Your task to perform on an android device: find snoozed emails in the gmail app Image 0: 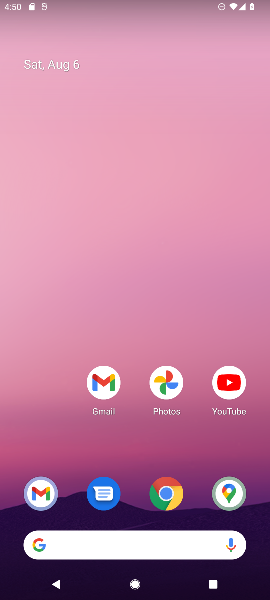
Step 0: drag from (137, 564) to (122, 229)
Your task to perform on an android device: find snoozed emails in the gmail app Image 1: 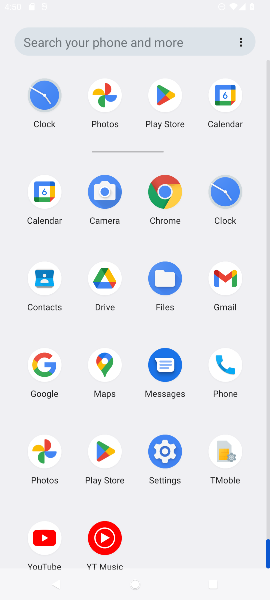
Step 1: drag from (216, 481) to (189, 261)
Your task to perform on an android device: find snoozed emails in the gmail app Image 2: 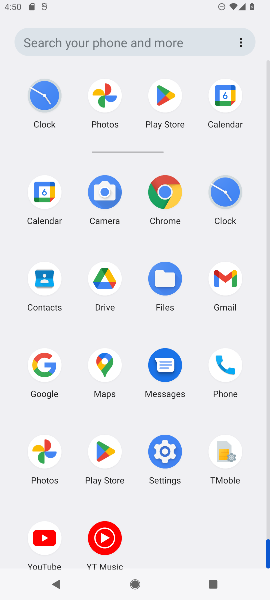
Step 2: click (212, 282)
Your task to perform on an android device: find snoozed emails in the gmail app Image 3: 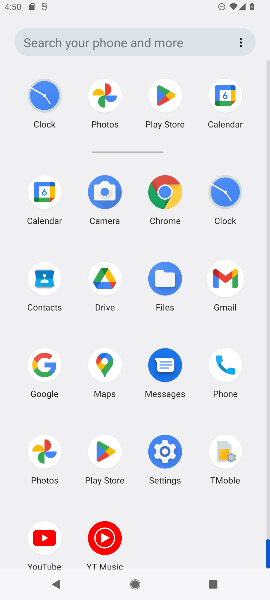
Step 3: click (217, 280)
Your task to perform on an android device: find snoozed emails in the gmail app Image 4: 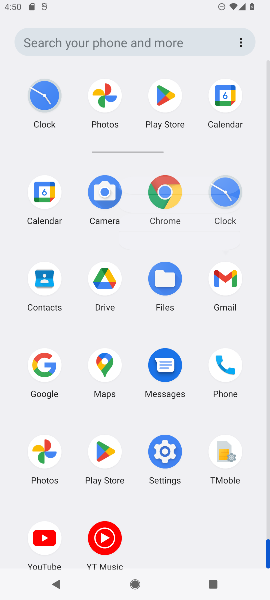
Step 4: click (222, 277)
Your task to perform on an android device: find snoozed emails in the gmail app Image 5: 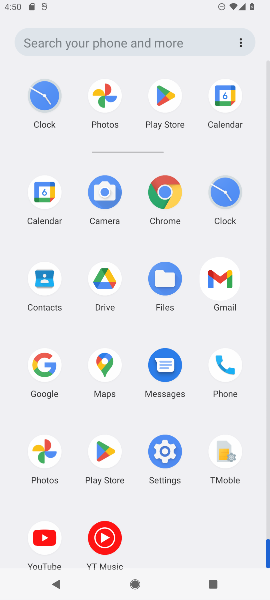
Step 5: click (224, 275)
Your task to perform on an android device: find snoozed emails in the gmail app Image 6: 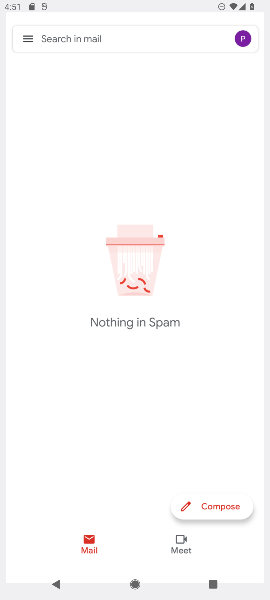
Step 6: click (224, 275)
Your task to perform on an android device: find snoozed emails in the gmail app Image 7: 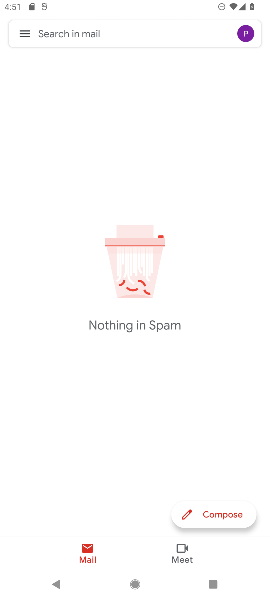
Step 7: click (30, 31)
Your task to perform on an android device: find snoozed emails in the gmail app Image 8: 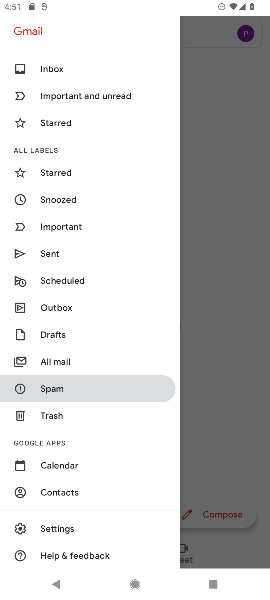
Step 8: press back button
Your task to perform on an android device: find snoozed emails in the gmail app Image 9: 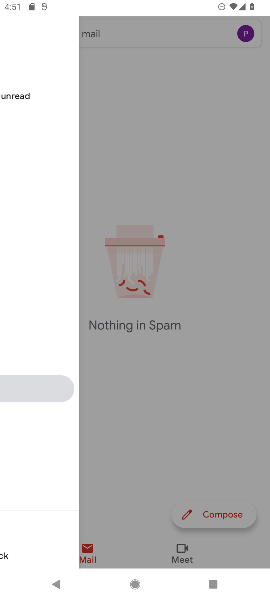
Step 9: press back button
Your task to perform on an android device: find snoozed emails in the gmail app Image 10: 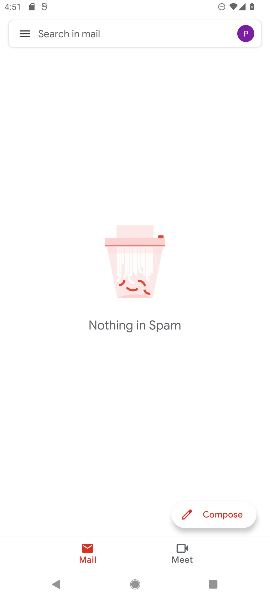
Step 10: press back button
Your task to perform on an android device: find snoozed emails in the gmail app Image 11: 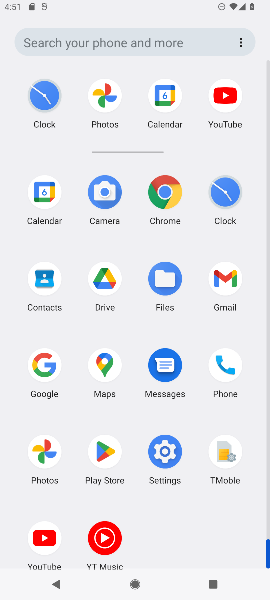
Step 11: press home button
Your task to perform on an android device: find snoozed emails in the gmail app Image 12: 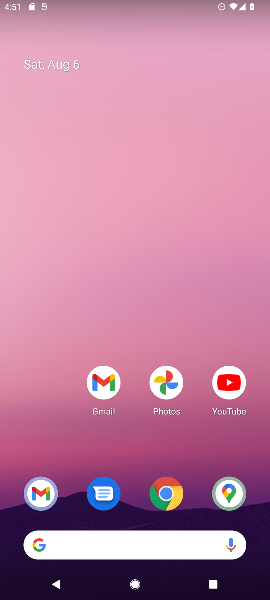
Step 12: drag from (214, 512) to (175, 203)
Your task to perform on an android device: find snoozed emails in the gmail app Image 13: 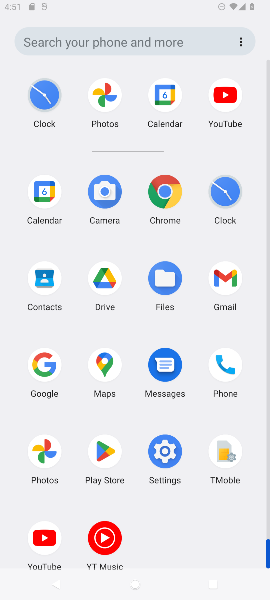
Step 13: drag from (151, 418) to (149, 118)
Your task to perform on an android device: find snoozed emails in the gmail app Image 14: 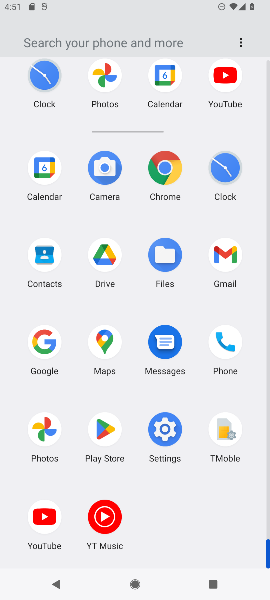
Step 14: click (200, 183)
Your task to perform on an android device: find snoozed emails in the gmail app Image 15: 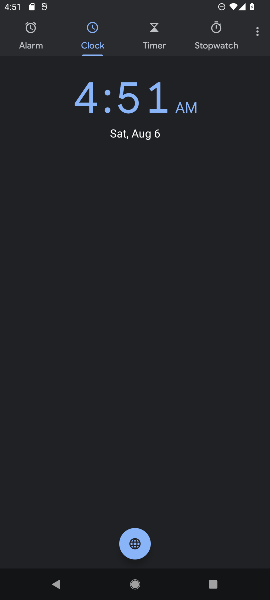
Step 15: press back button
Your task to perform on an android device: find snoozed emails in the gmail app Image 16: 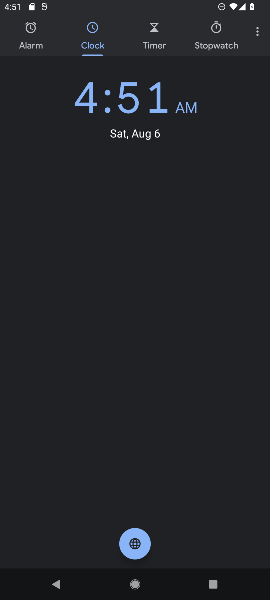
Step 16: press back button
Your task to perform on an android device: find snoozed emails in the gmail app Image 17: 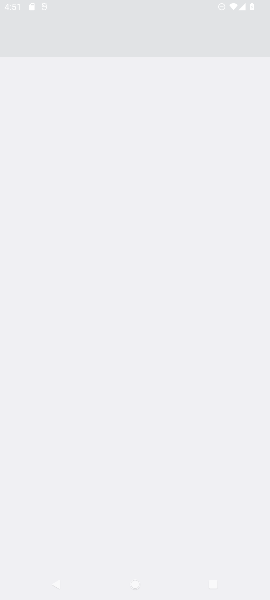
Step 17: press back button
Your task to perform on an android device: find snoozed emails in the gmail app Image 18: 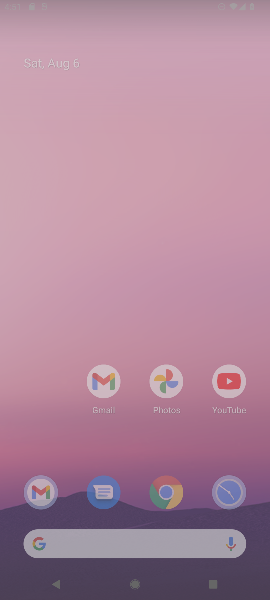
Step 18: press back button
Your task to perform on an android device: find snoozed emails in the gmail app Image 19: 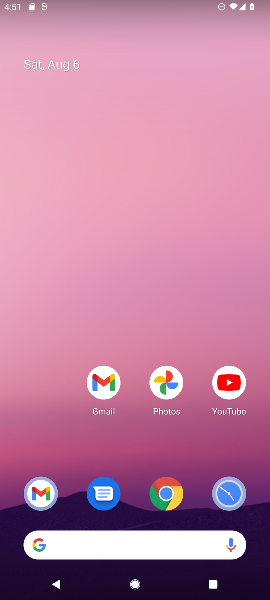
Step 19: press back button
Your task to perform on an android device: find snoozed emails in the gmail app Image 20: 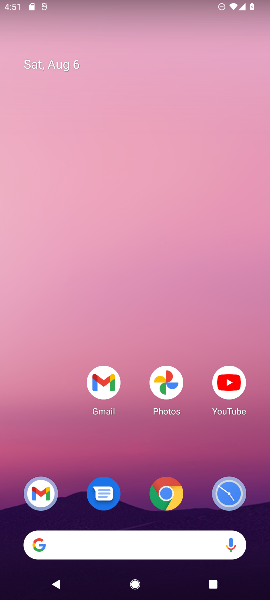
Step 20: drag from (151, 553) to (165, 95)
Your task to perform on an android device: find snoozed emails in the gmail app Image 21: 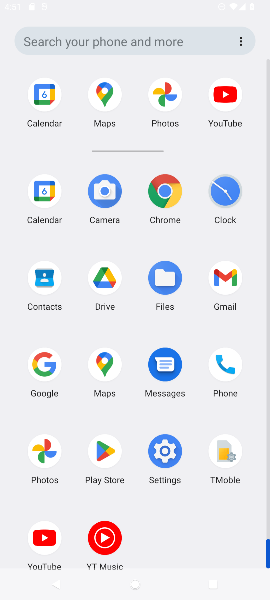
Step 21: drag from (201, 497) to (112, 124)
Your task to perform on an android device: find snoozed emails in the gmail app Image 22: 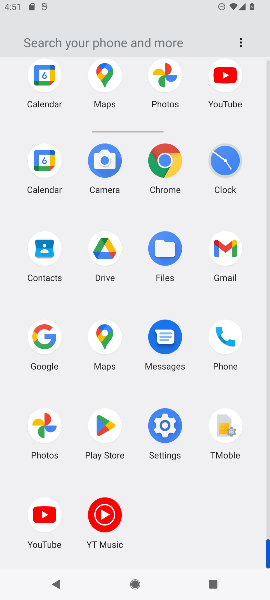
Step 22: drag from (78, 575) to (70, 182)
Your task to perform on an android device: find snoozed emails in the gmail app Image 23: 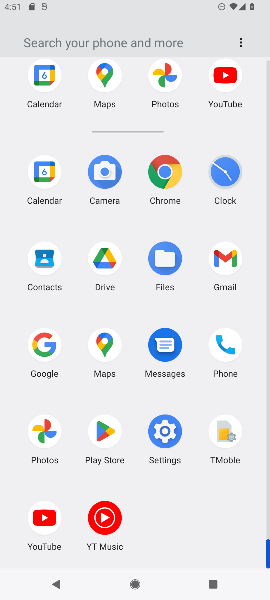
Step 23: click (226, 259)
Your task to perform on an android device: find snoozed emails in the gmail app Image 24: 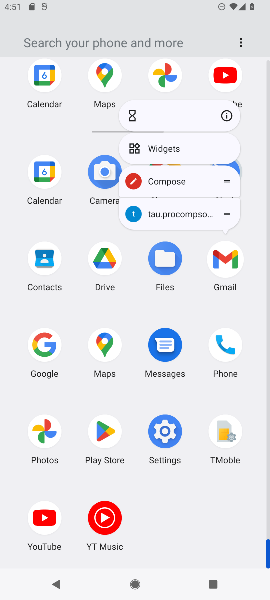
Step 24: click (226, 260)
Your task to perform on an android device: find snoozed emails in the gmail app Image 25: 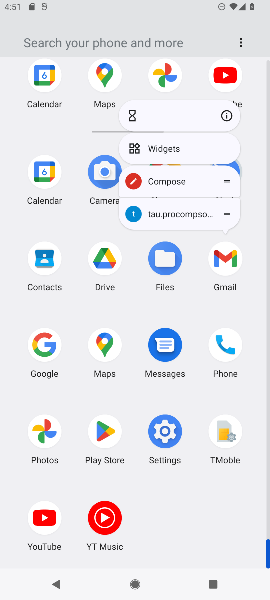
Step 25: click (226, 260)
Your task to perform on an android device: find snoozed emails in the gmail app Image 26: 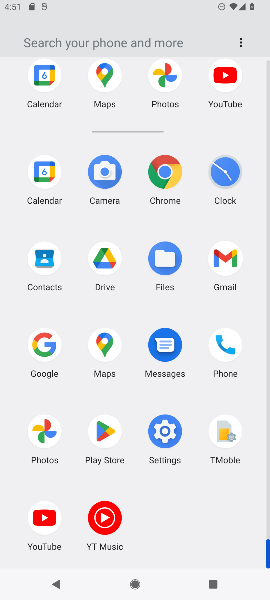
Step 26: click (226, 260)
Your task to perform on an android device: find snoozed emails in the gmail app Image 27: 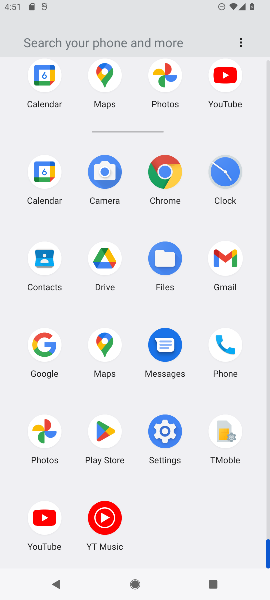
Step 27: click (226, 260)
Your task to perform on an android device: find snoozed emails in the gmail app Image 28: 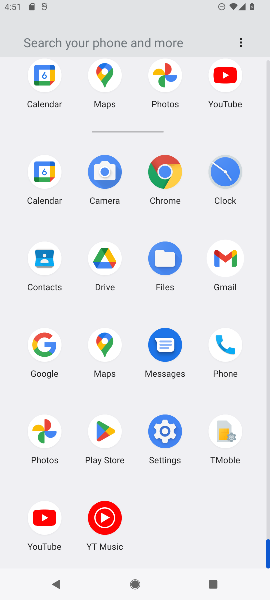
Step 28: click (226, 260)
Your task to perform on an android device: find snoozed emails in the gmail app Image 29: 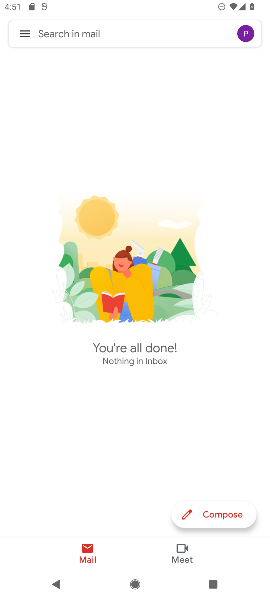
Step 29: click (230, 264)
Your task to perform on an android device: find snoozed emails in the gmail app Image 30: 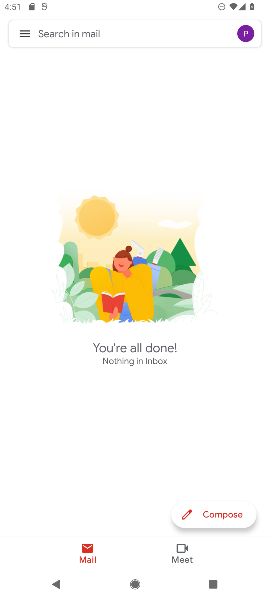
Step 30: click (230, 264)
Your task to perform on an android device: find snoozed emails in the gmail app Image 31: 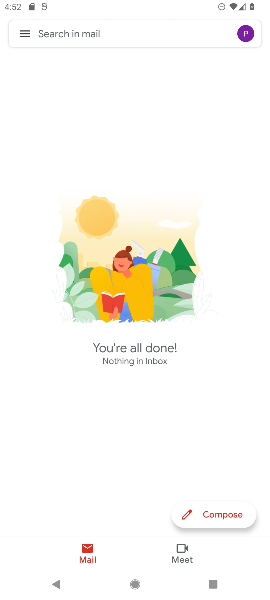
Step 31: click (20, 35)
Your task to perform on an android device: find snoozed emails in the gmail app Image 32: 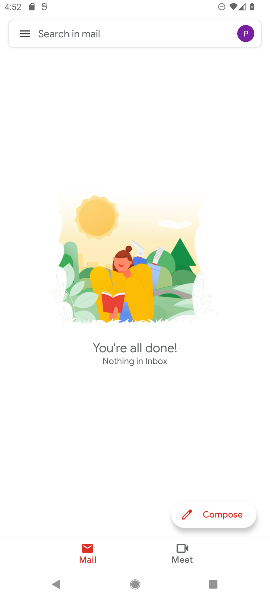
Step 32: click (22, 33)
Your task to perform on an android device: find snoozed emails in the gmail app Image 33: 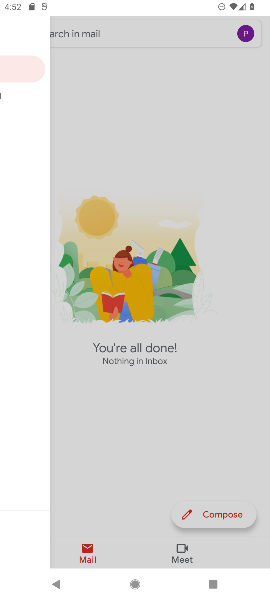
Step 33: click (22, 33)
Your task to perform on an android device: find snoozed emails in the gmail app Image 34: 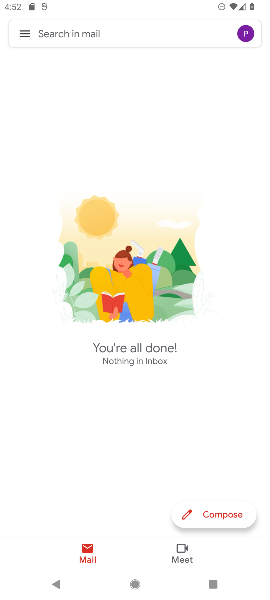
Step 34: click (22, 33)
Your task to perform on an android device: find snoozed emails in the gmail app Image 35: 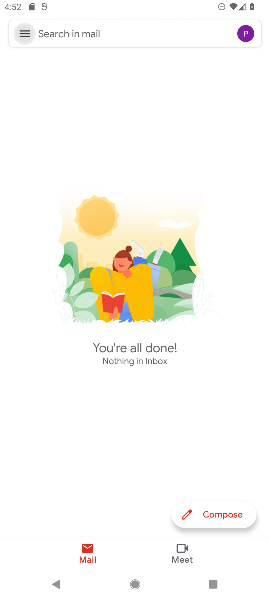
Step 35: click (26, 35)
Your task to perform on an android device: find snoozed emails in the gmail app Image 36: 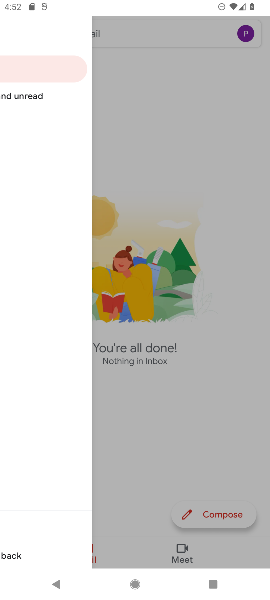
Step 36: click (26, 35)
Your task to perform on an android device: find snoozed emails in the gmail app Image 37: 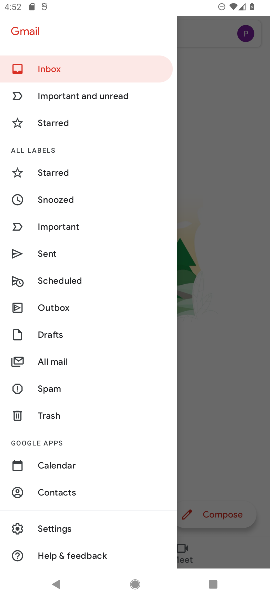
Step 37: click (26, 35)
Your task to perform on an android device: find snoozed emails in the gmail app Image 38: 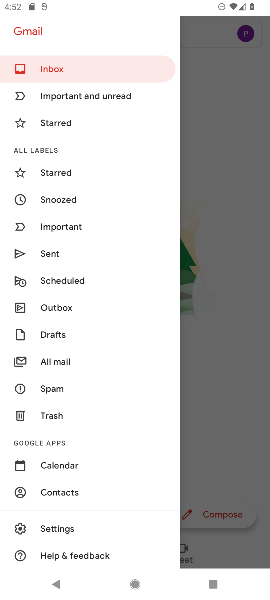
Step 38: click (63, 198)
Your task to perform on an android device: find snoozed emails in the gmail app Image 39: 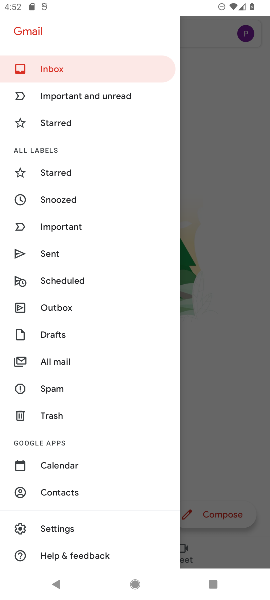
Step 39: click (63, 198)
Your task to perform on an android device: find snoozed emails in the gmail app Image 40: 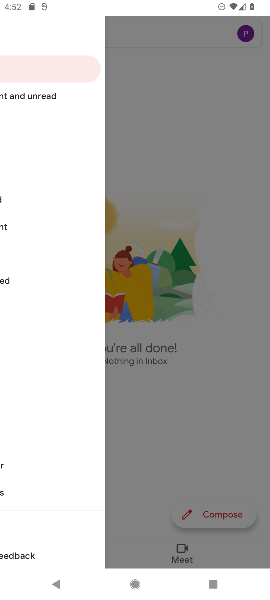
Step 40: click (63, 198)
Your task to perform on an android device: find snoozed emails in the gmail app Image 41: 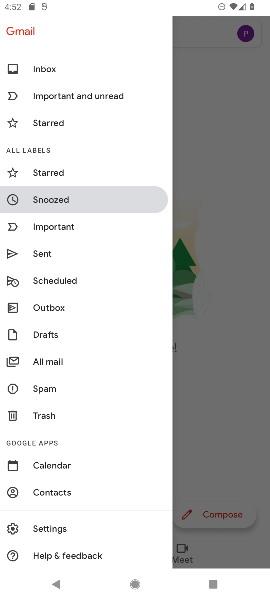
Step 41: click (63, 199)
Your task to perform on an android device: find snoozed emails in the gmail app Image 42: 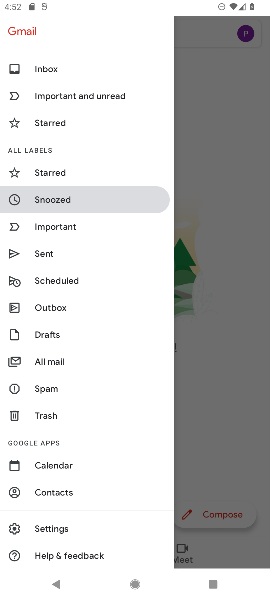
Step 42: click (63, 199)
Your task to perform on an android device: find snoozed emails in the gmail app Image 43: 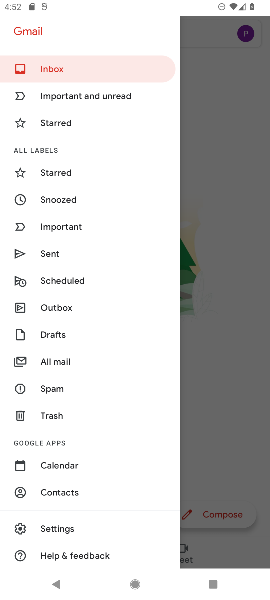
Step 43: click (66, 201)
Your task to perform on an android device: find snoozed emails in the gmail app Image 44: 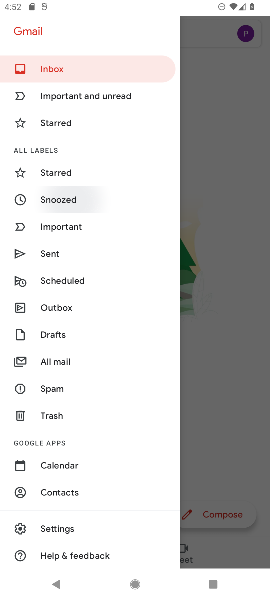
Step 44: click (66, 201)
Your task to perform on an android device: find snoozed emails in the gmail app Image 45: 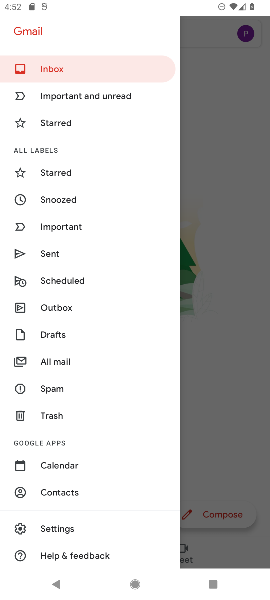
Step 45: click (62, 202)
Your task to perform on an android device: find snoozed emails in the gmail app Image 46: 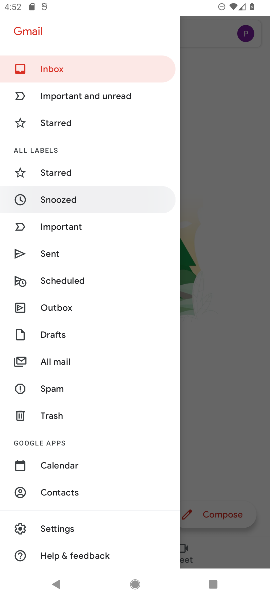
Step 46: click (59, 201)
Your task to perform on an android device: find snoozed emails in the gmail app Image 47: 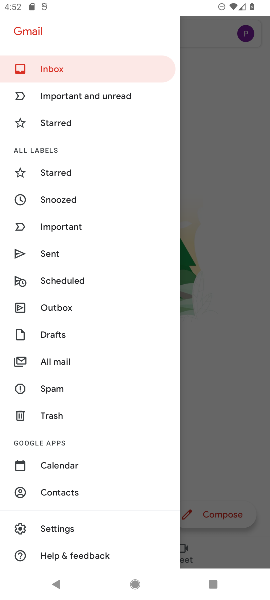
Step 47: click (41, 199)
Your task to perform on an android device: find snoozed emails in the gmail app Image 48: 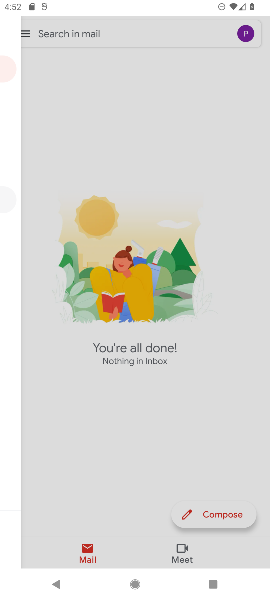
Step 48: click (44, 199)
Your task to perform on an android device: find snoozed emails in the gmail app Image 49: 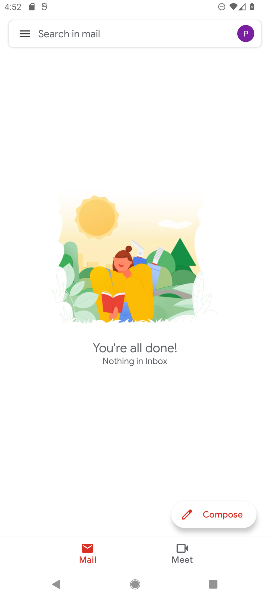
Step 49: click (44, 199)
Your task to perform on an android device: find snoozed emails in the gmail app Image 50: 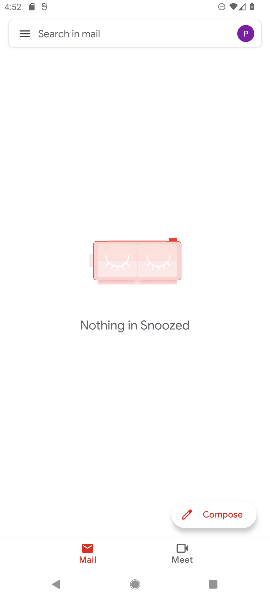
Step 50: task complete